Your task to perform on an android device: toggle sleep mode Image 0: 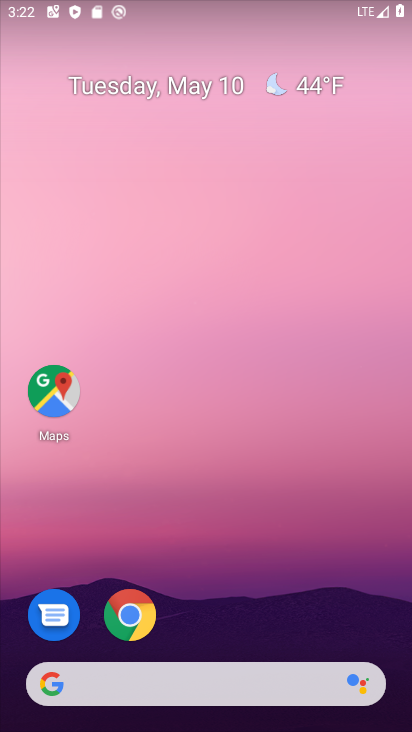
Step 0: drag from (206, 648) to (249, 60)
Your task to perform on an android device: toggle sleep mode Image 1: 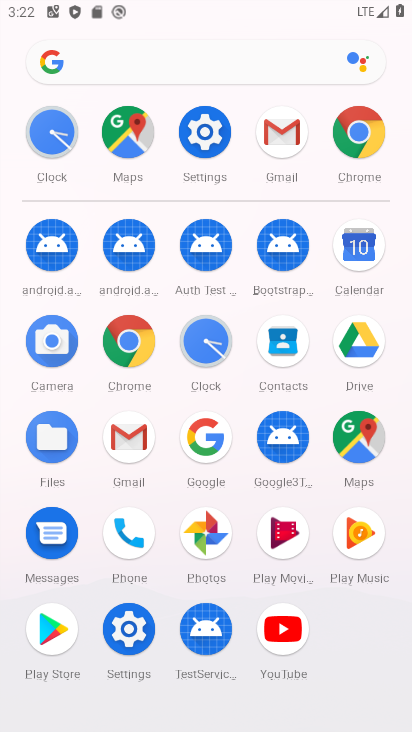
Step 1: click (128, 624)
Your task to perform on an android device: toggle sleep mode Image 2: 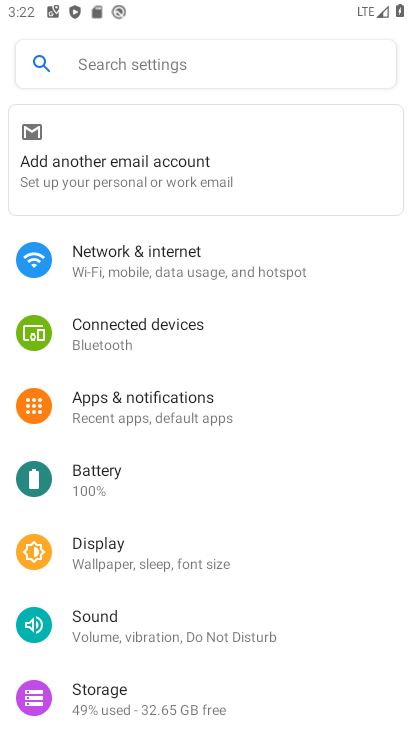
Step 2: drag from (168, 617) to (179, 428)
Your task to perform on an android device: toggle sleep mode Image 3: 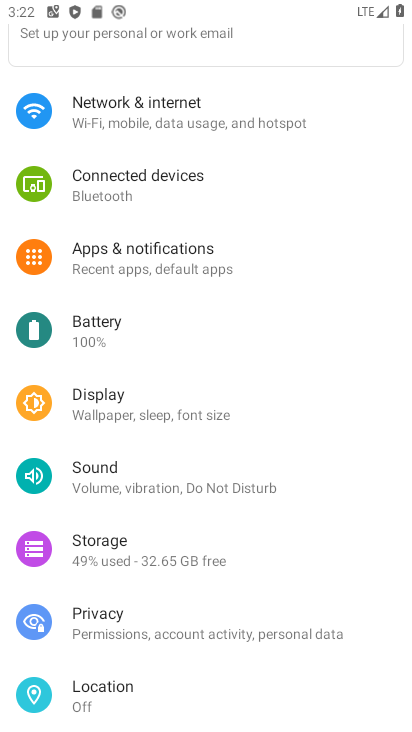
Step 3: click (205, 410)
Your task to perform on an android device: toggle sleep mode Image 4: 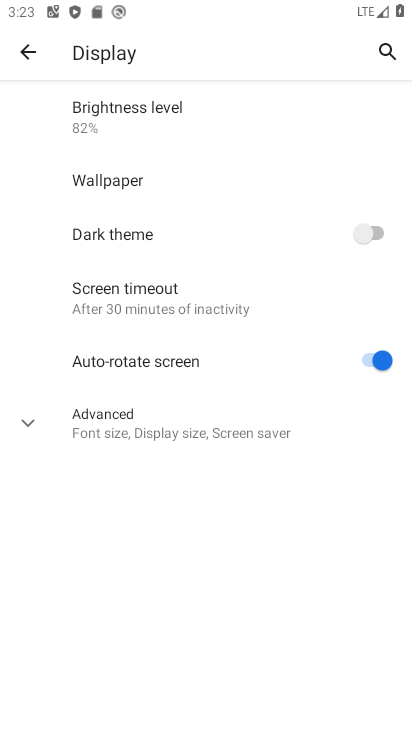
Step 4: task complete